Your task to perform on an android device: add a contact Image 0: 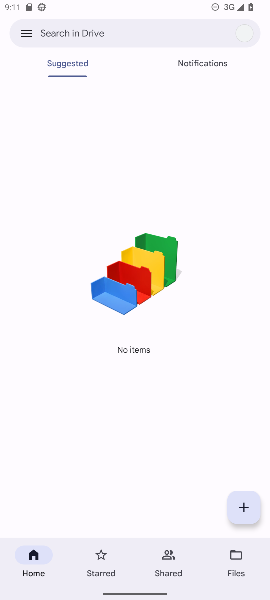
Step 0: press home button
Your task to perform on an android device: add a contact Image 1: 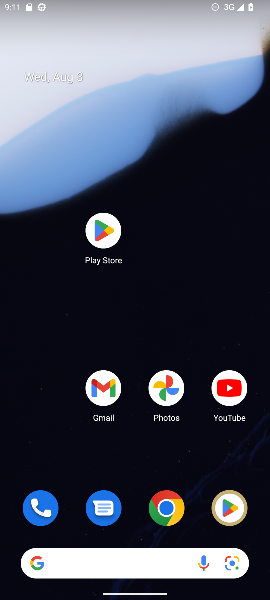
Step 1: drag from (136, 522) to (174, 13)
Your task to perform on an android device: add a contact Image 2: 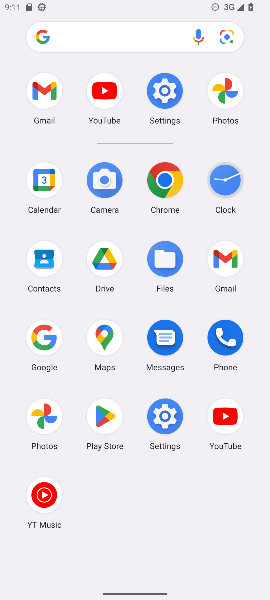
Step 2: click (227, 349)
Your task to perform on an android device: add a contact Image 3: 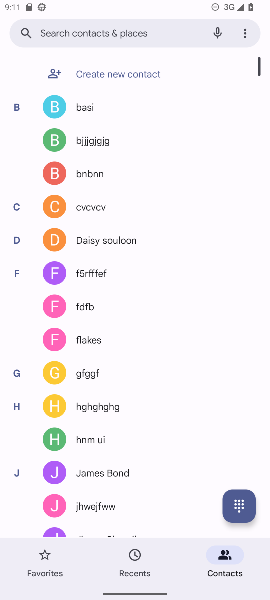
Step 3: click (229, 563)
Your task to perform on an android device: add a contact Image 4: 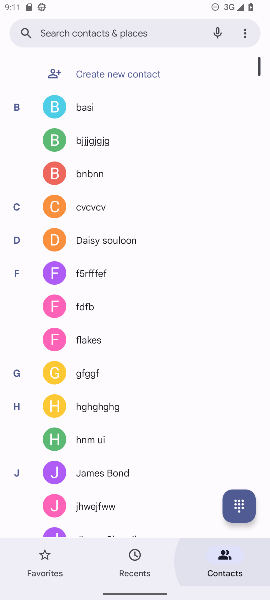
Step 4: click (85, 72)
Your task to perform on an android device: add a contact Image 5: 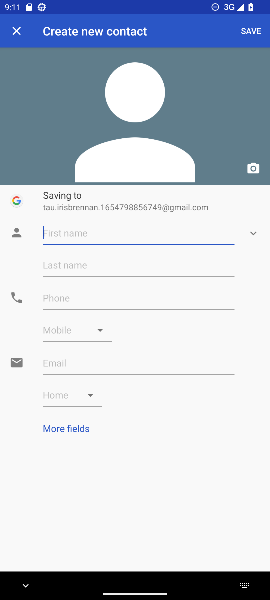
Step 5: type "ff"
Your task to perform on an android device: add a contact Image 6: 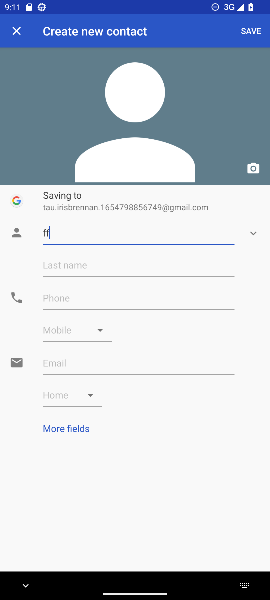
Step 6: type ""
Your task to perform on an android device: add a contact Image 7: 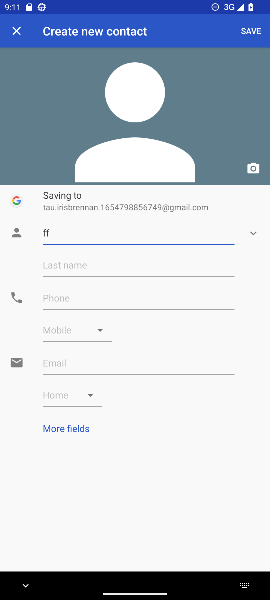
Step 7: click (126, 315)
Your task to perform on an android device: add a contact Image 8: 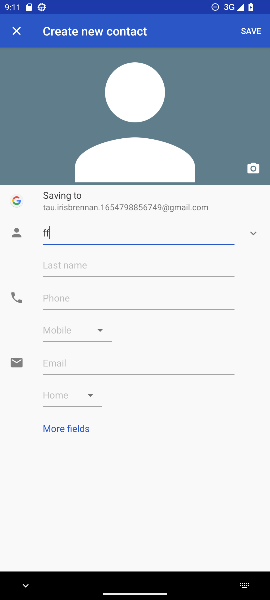
Step 8: click (197, 306)
Your task to perform on an android device: add a contact Image 9: 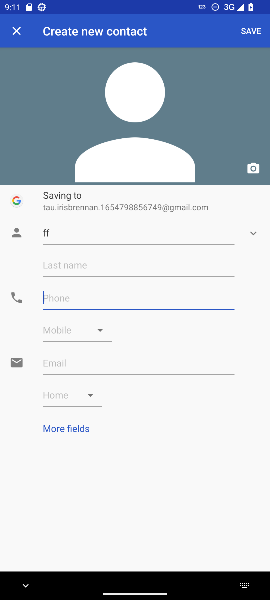
Step 9: type "r55"
Your task to perform on an android device: add a contact Image 10: 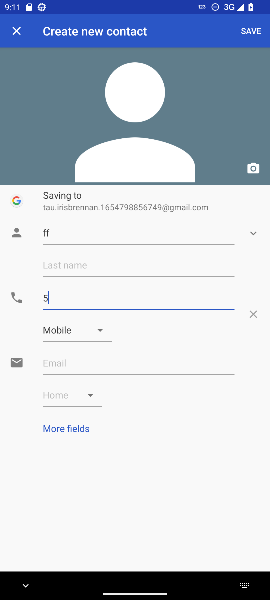
Step 10: type ""
Your task to perform on an android device: add a contact Image 11: 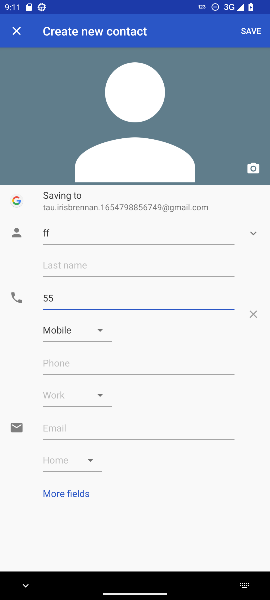
Step 11: click (237, 5)
Your task to perform on an android device: add a contact Image 12: 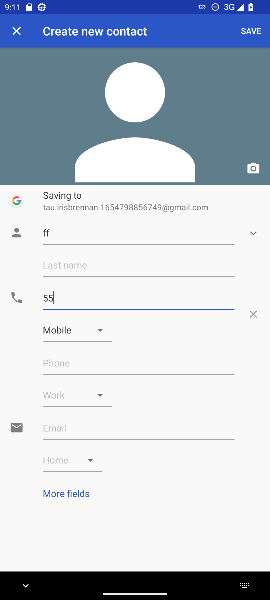
Step 12: click (249, 40)
Your task to perform on an android device: add a contact Image 13: 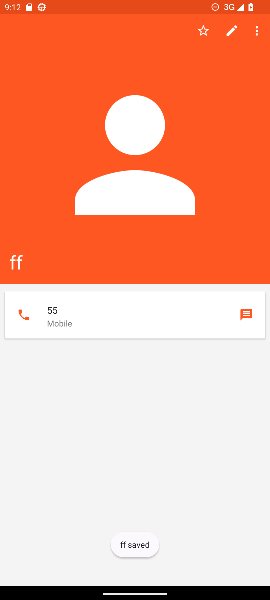
Step 13: task complete